Your task to perform on an android device: Search for the best deal on a 3d printer on aliexpress Image 0: 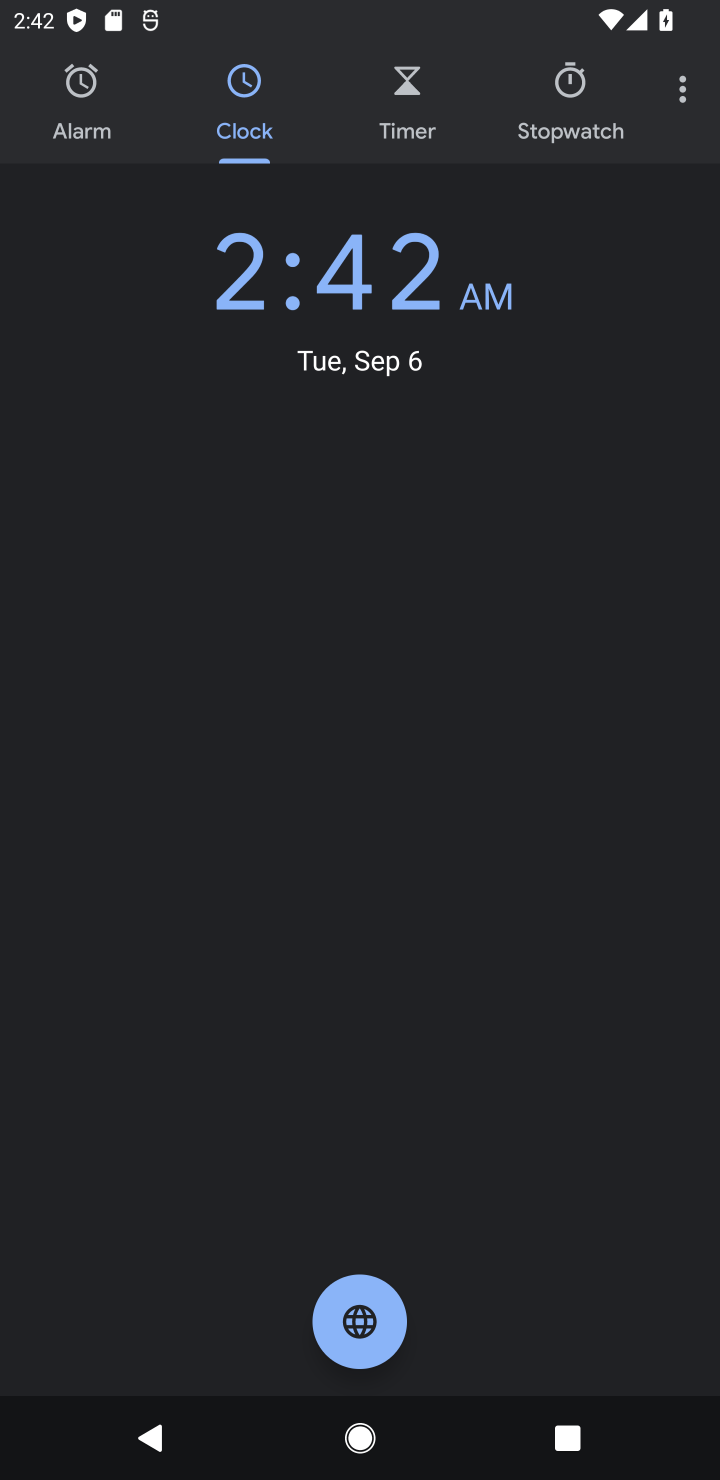
Step 0: press home button
Your task to perform on an android device: Search for the best deal on a 3d printer on aliexpress Image 1: 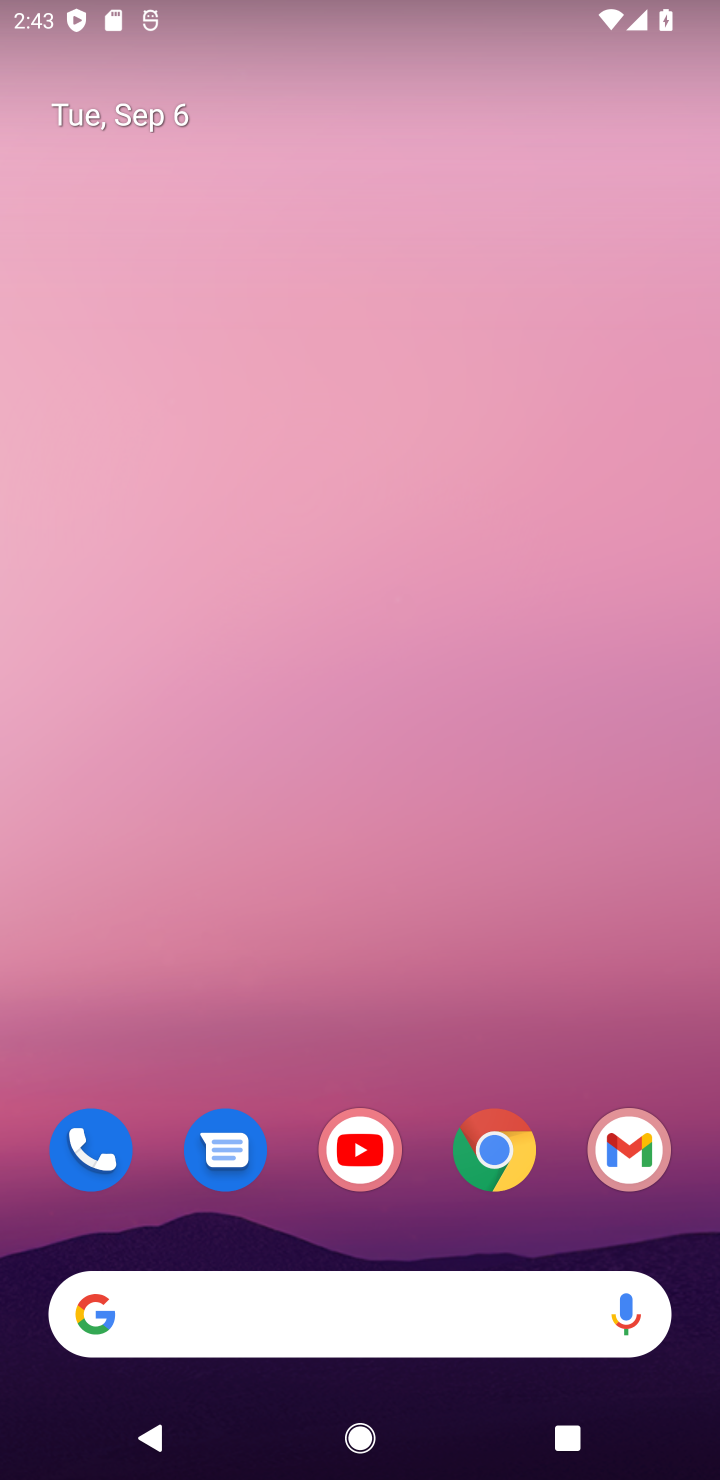
Step 1: click (495, 1158)
Your task to perform on an android device: Search for the best deal on a 3d printer on aliexpress Image 2: 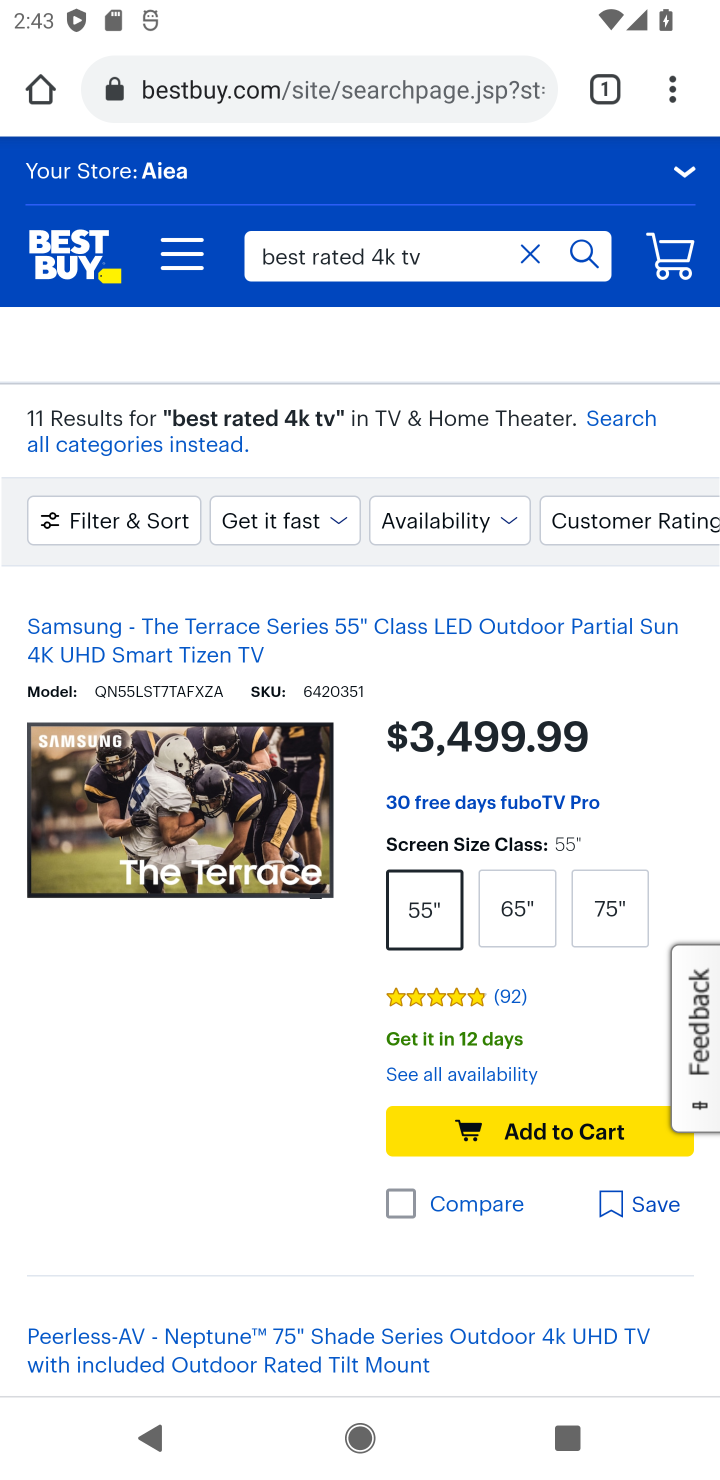
Step 2: click (343, 112)
Your task to perform on an android device: Search for the best deal on a 3d printer on aliexpress Image 3: 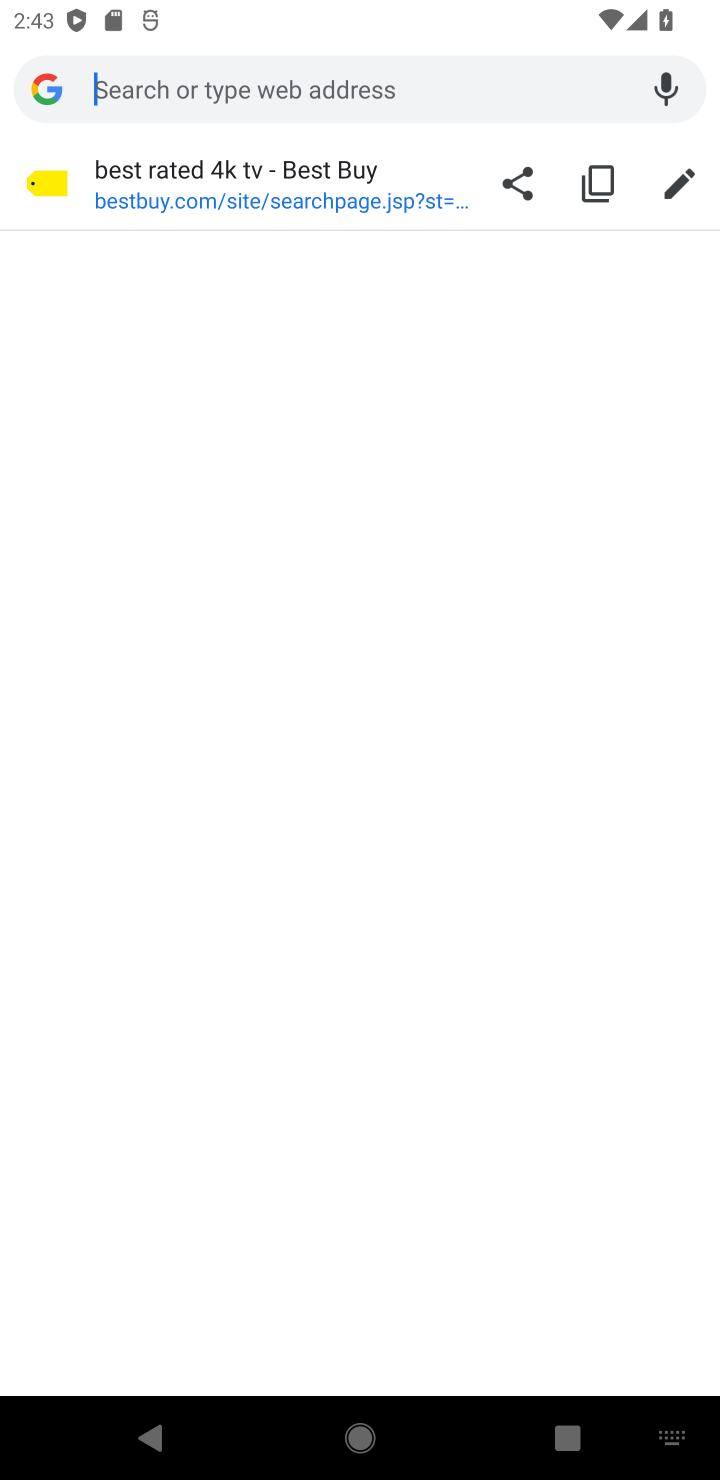
Step 3: type "aliexpress"
Your task to perform on an android device: Search for the best deal on a 3d printer on aliexpress Image 4: 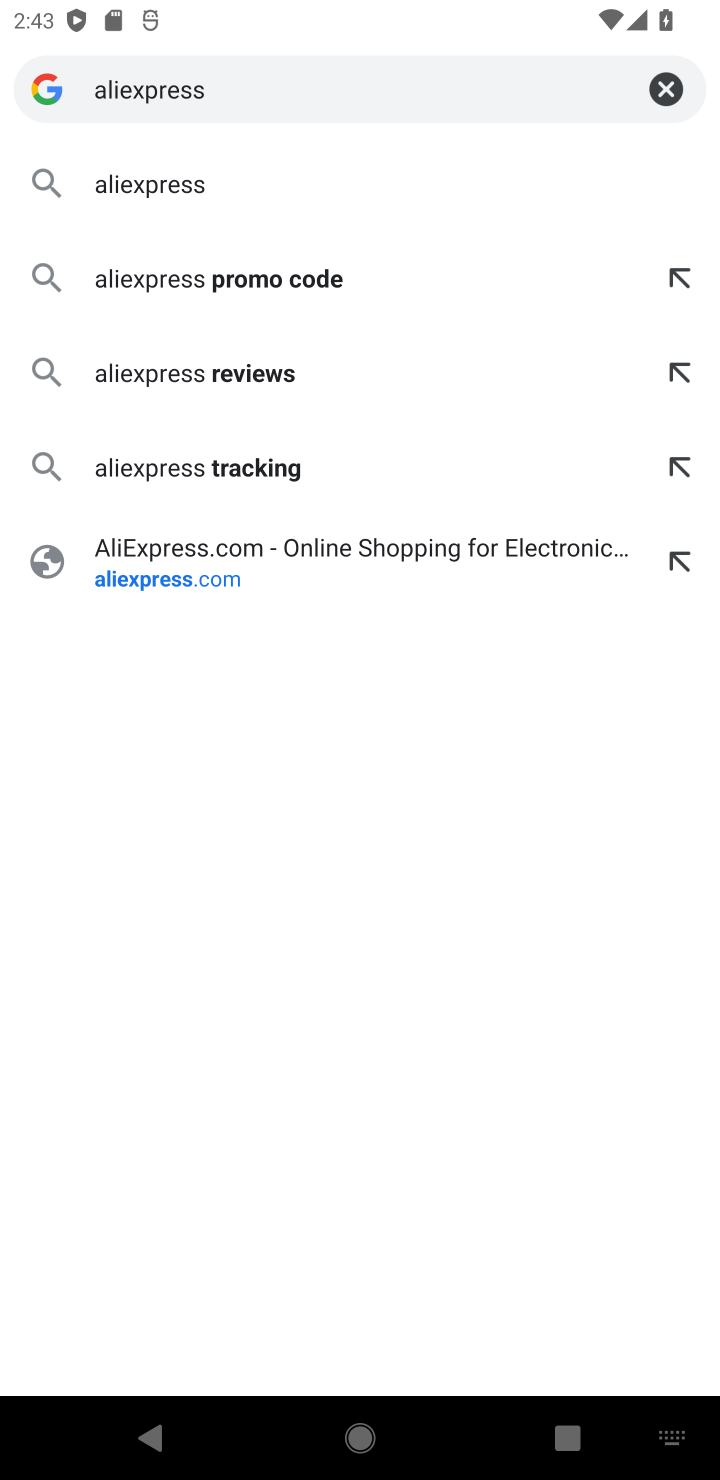
Step 4: click (141, 201)
Your task to perform on an android device: Search for the best deal on a 3d printer on aliexpress Image 5: 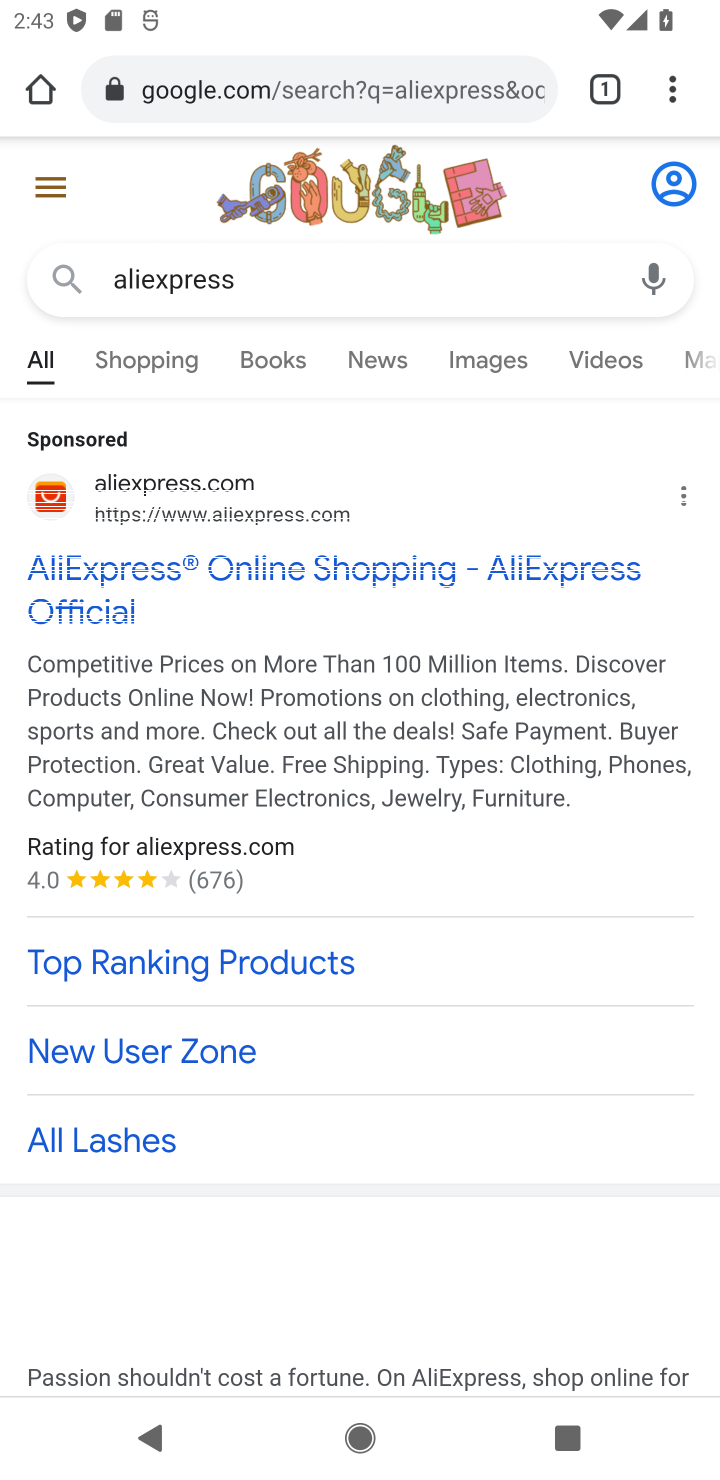
Step 5: click (108, 579)
Your task to perform on an android device: Search for the best deal on a 3d printer on aliexpress Image 6: 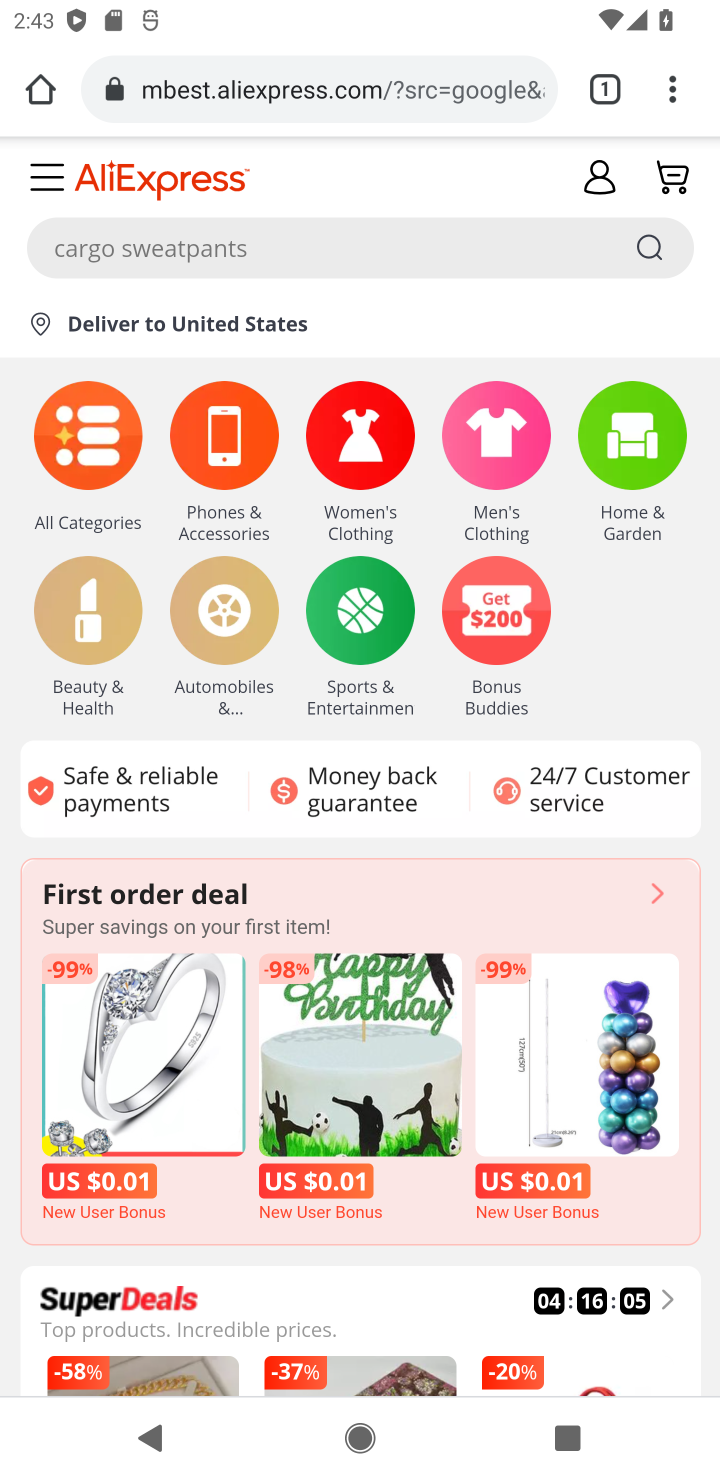
Step 6: click (634, 246)
Your task to perform on an android device: Search for the best deal on a 3d printer on aliexpress Image 7: 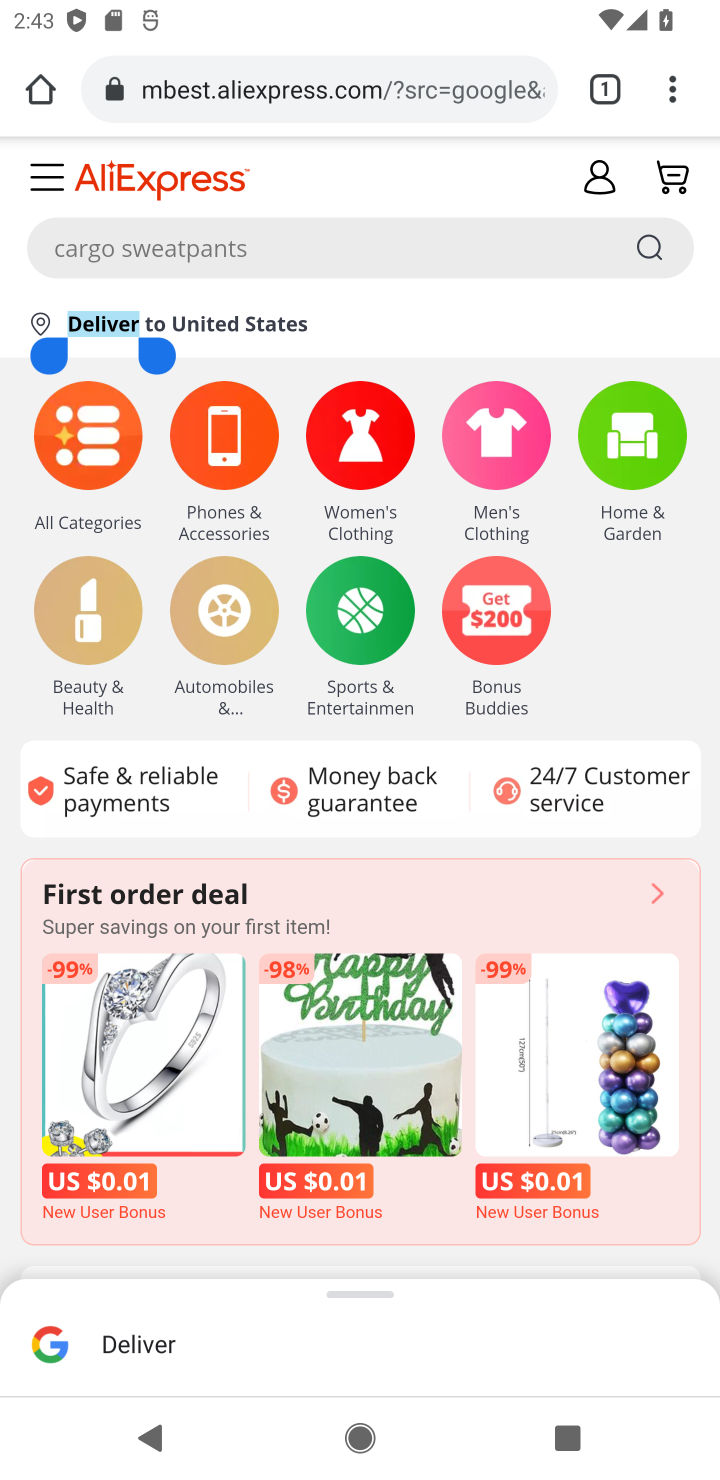
Step 7: click (590, 246)
Your task to perform on an android device: Search for the best deal on a 3d printer on aliexpress Image 8: 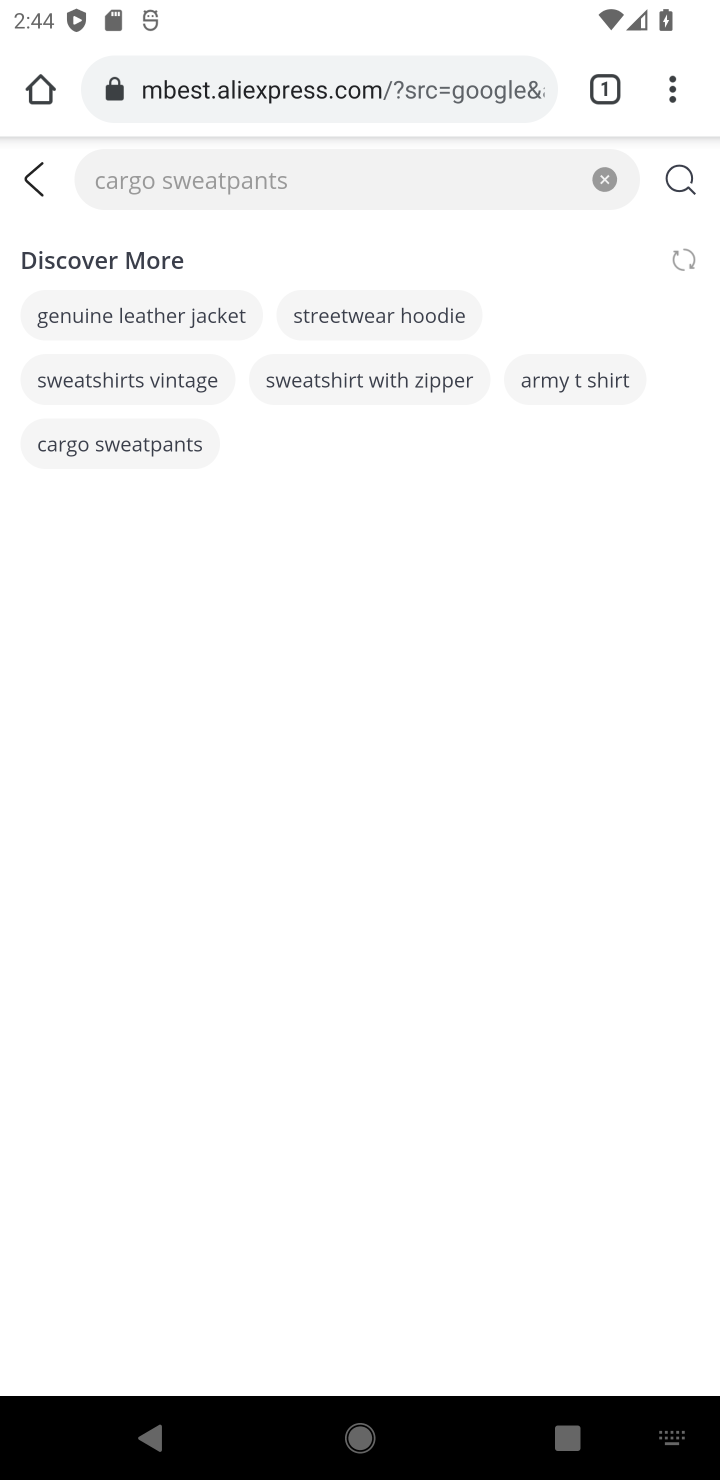
Step 8: type " best deal on a 3d printer"
Your task to perform on an android device: Search for the best deal on a 3d printer on aliexpress Image 9: 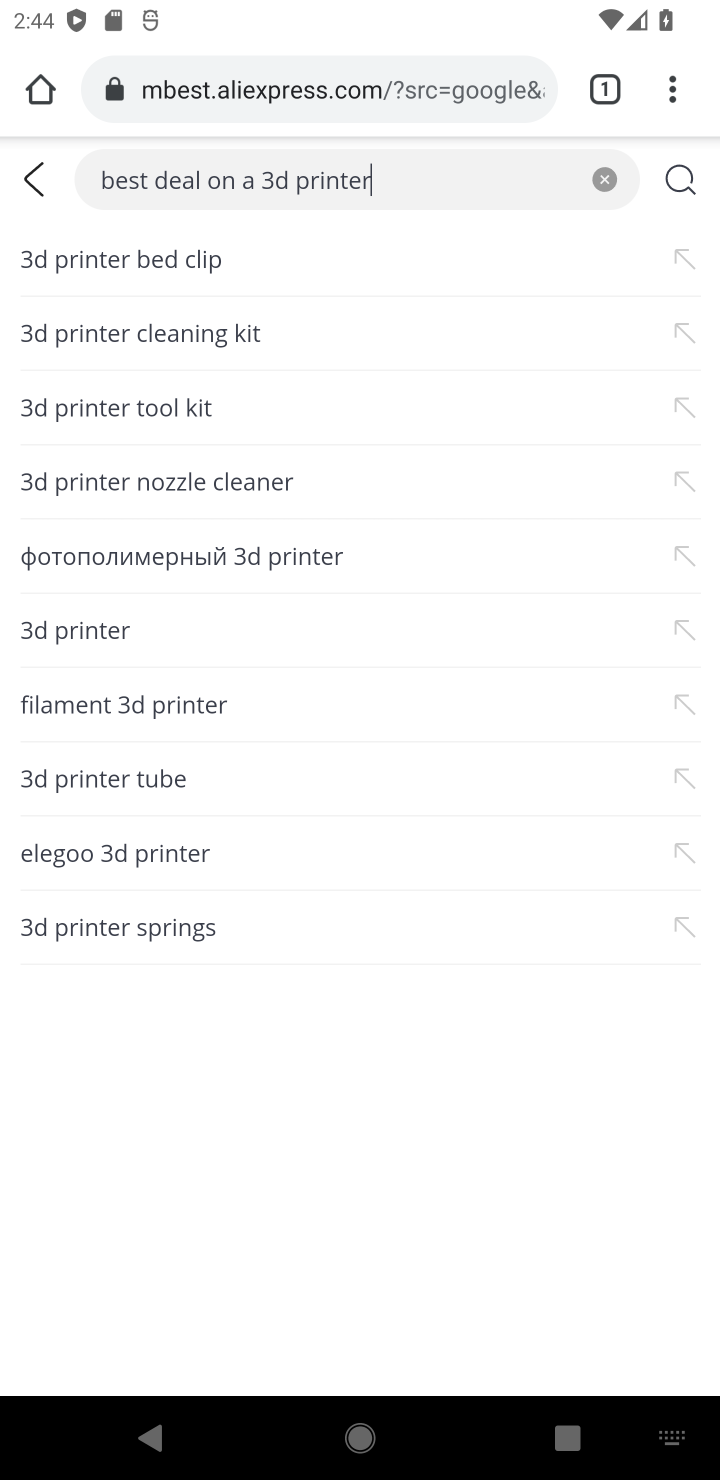
Step 9: click (685, 182)
Your task to perform on an android device: Search for the best deal on a 3d printer on aliexpress Image 10: 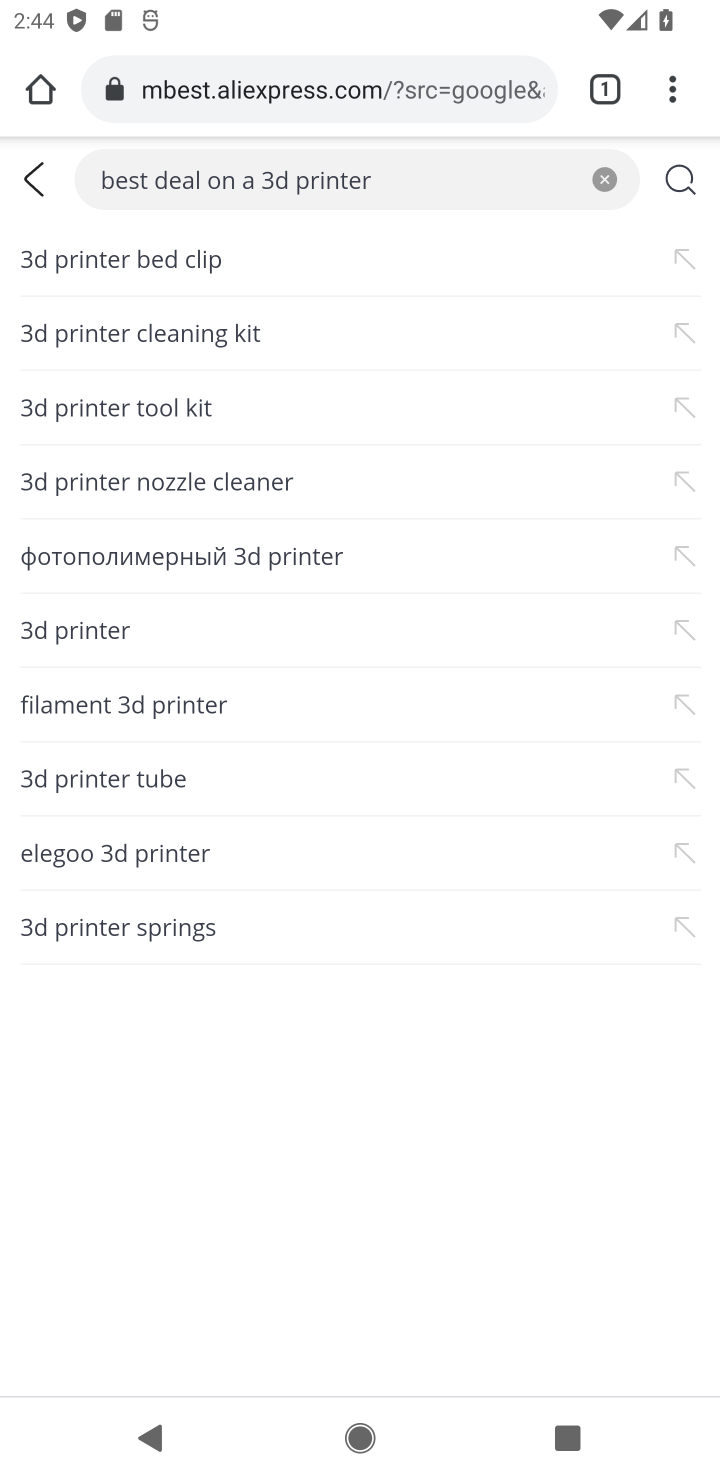
Step 10: click (673, 188)
Your task to perform on an android device: Search for the best deal on a 3d printer on aliexpress Image 11: 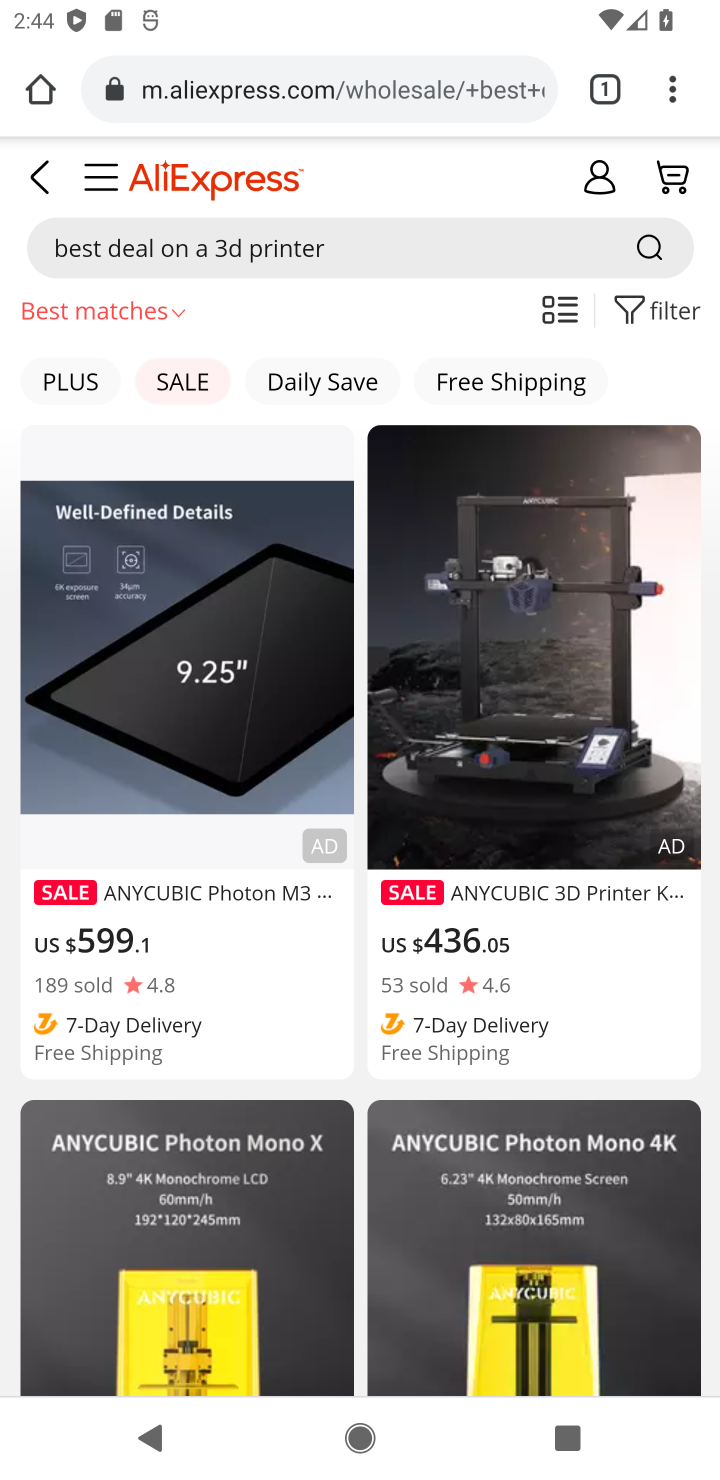
Step 11: task complete